Your task to perform on an android device: toggle wifi Image 0: 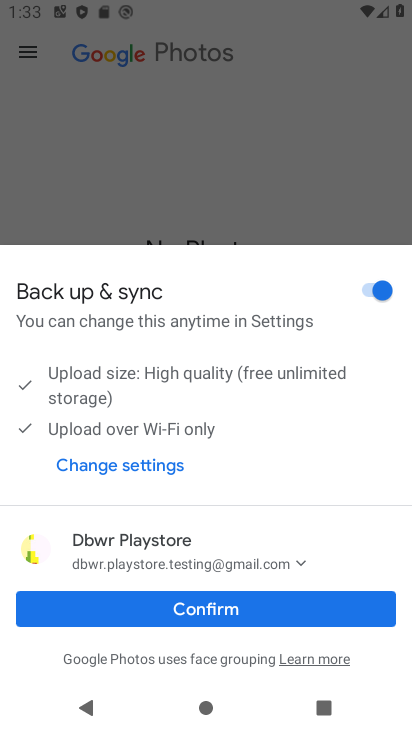
Step 0: press home button
Your task to perform on an android device: toggle wifi Image 1: 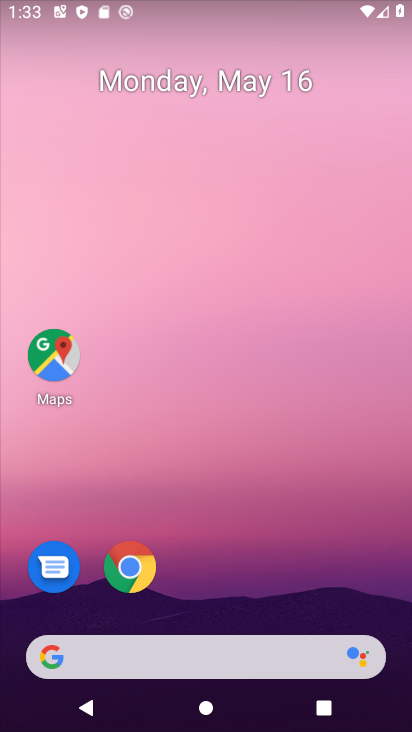
Step 1: drag from (252, 583) to (200, 107)
Your task to perform on an android device: toggle wifi Image 2: 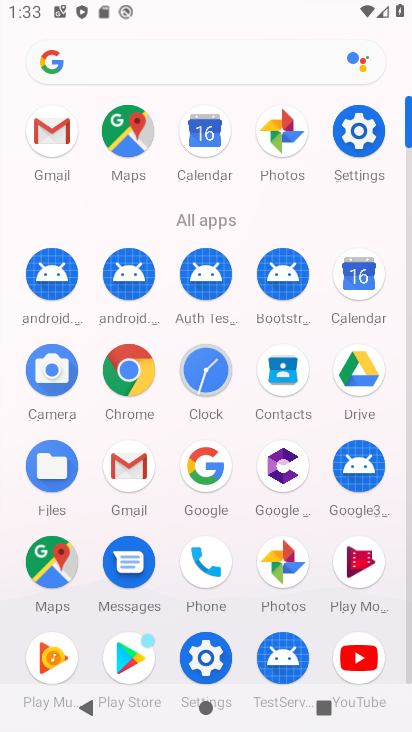
Step 2: click (353, 139)
Your task to perform on an android device: toggle wifi Image 3: 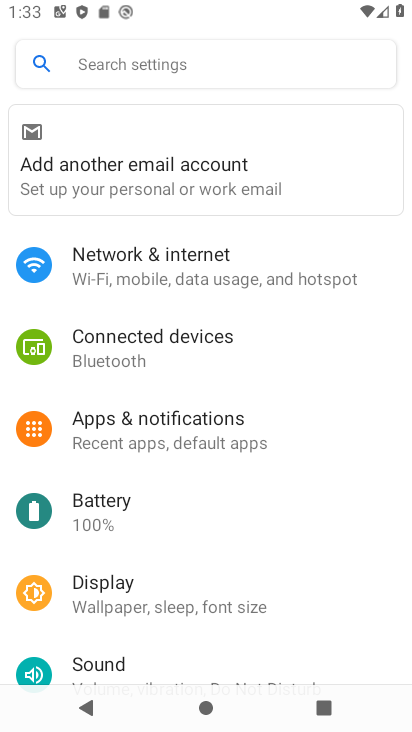
Step 3: click (312, 265)
Your task to perform on an android device: toggle wifi Image 4: 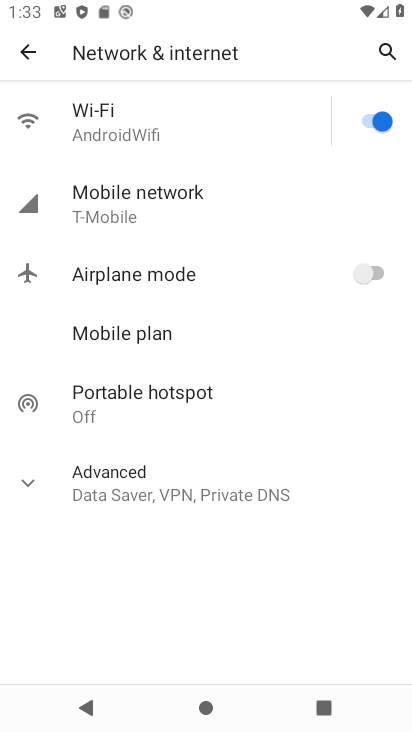
Step 4: click (206, 134)
Your task to perform on an android device: toggle wifi Image 5: 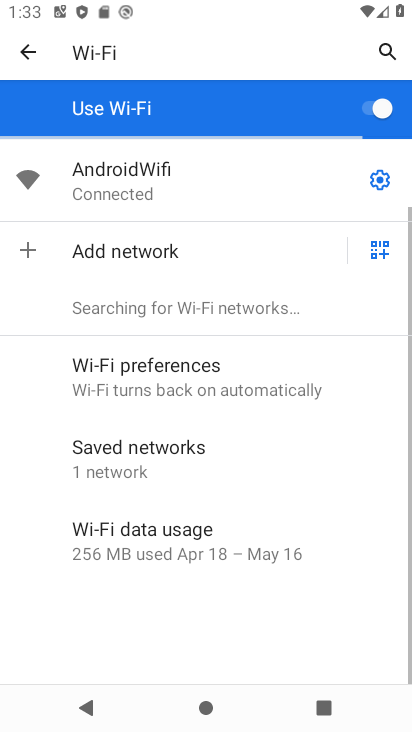
Step 5: click (369, 114)
Your task to perform on an android device: toggle wifi Image 6: 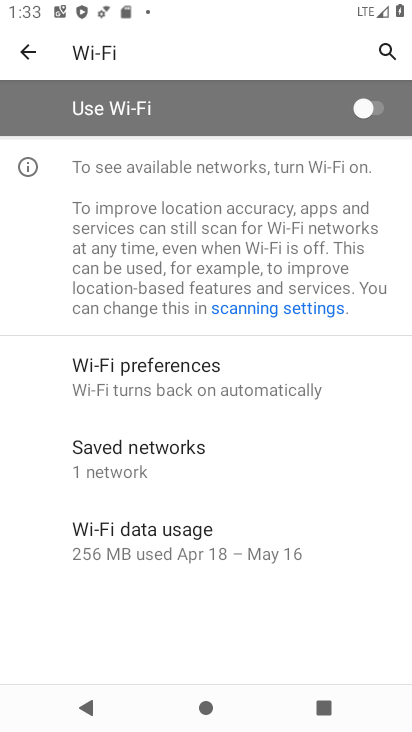
Step 6: task complete